Your task to perform on an android device: turn on javascript in the chrome app Image 0: 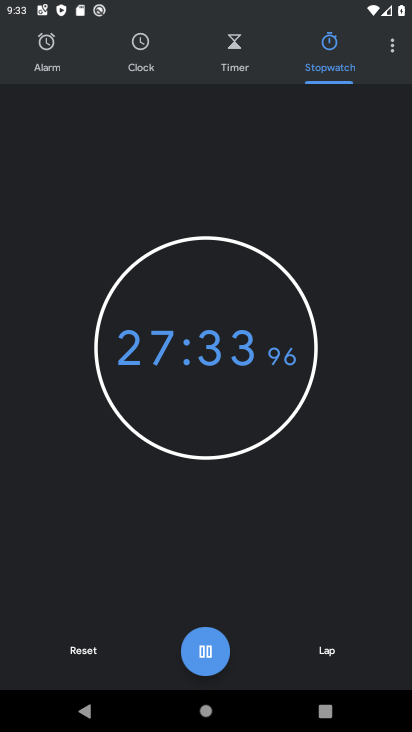
Step 0: drag from (389, 39) to (376, 100)
Your task to perform on an android device: turn on javascript in the chrome app Image 1: 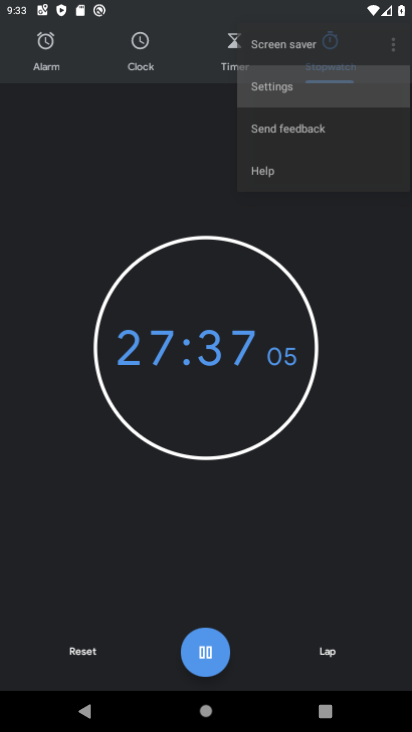
Step 1: press back button
Your task to perform on an android device: turn on javascript in the chrome app Image 2: 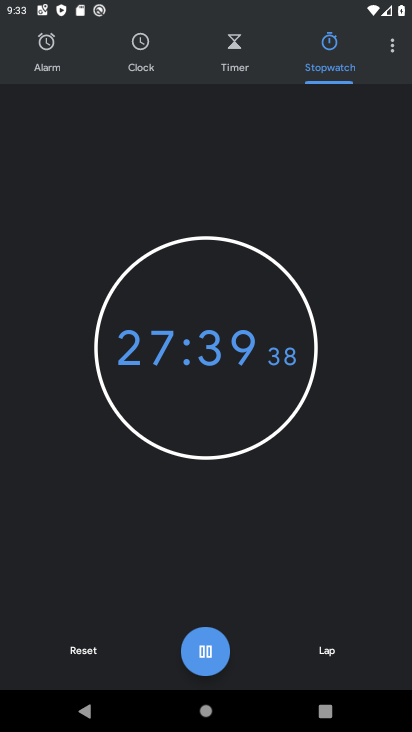
Step 2: press back button
Your task to perform on an android device: turn on javascript in the chrome app Image 3: 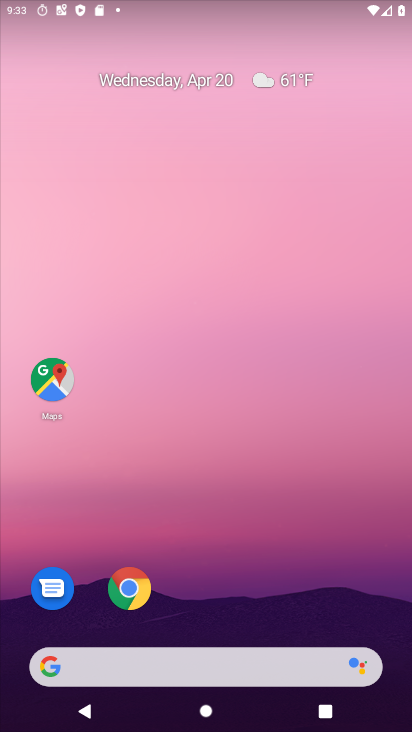
Step 3: drag from (267, 544) to (194, 21)
Your task to perform on an android device: turn on javascript in the chrome app Image 4: 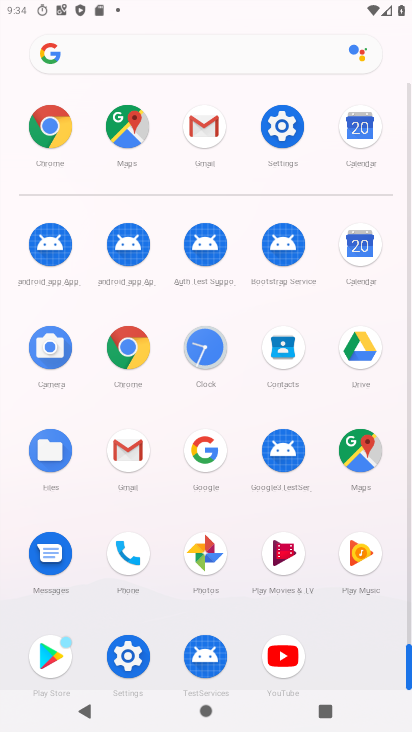
Step 4: click (126, 351)
Your task to perform on an android device: turn on javascript in the chrome app Image 5: 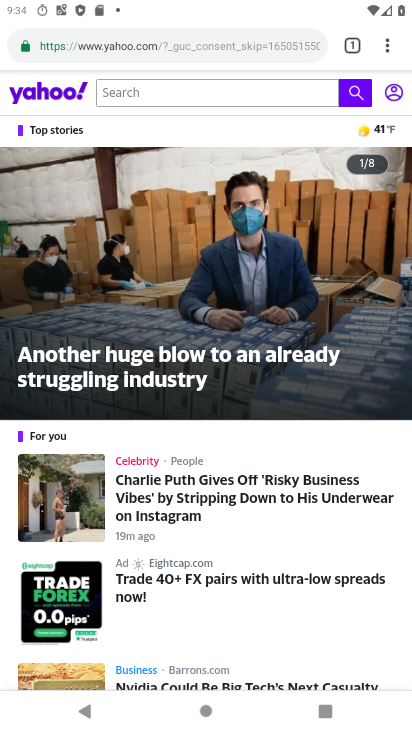
Step 5: drag from (385, 39) to (243, 599)
Your task to perform on an android device: turn on javascript in the chrome app Image 6: 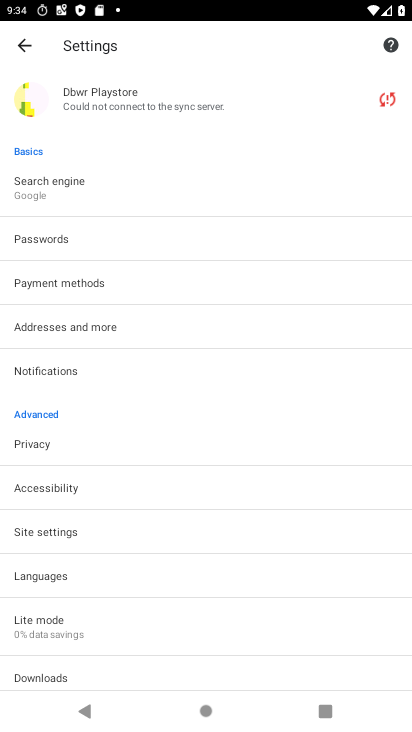
Step 6: click (72, 533)
Your task to perform on an android device: turn on javascript in the chrome app Image 7: 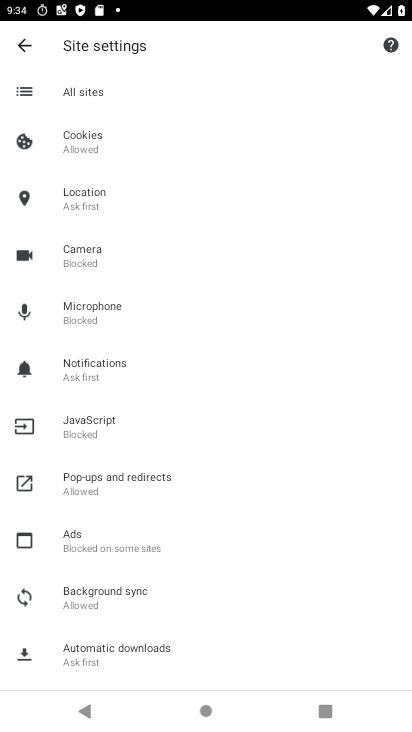
Step 7: click (134, 431)
Your task to perform on an android device: turn on javascript in the chrome app Image 8: 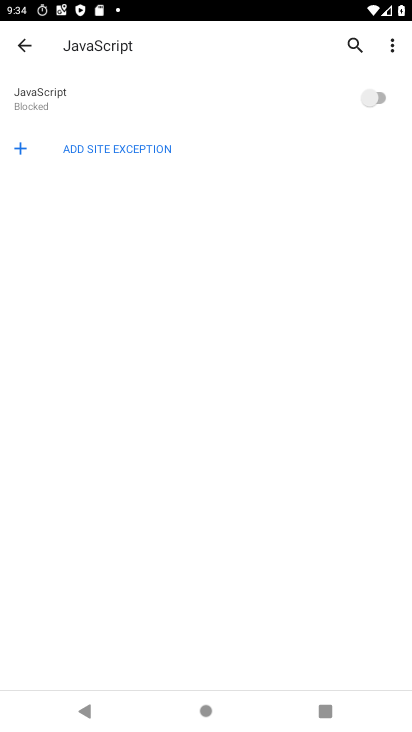
Step 8: click (373, 96)
Your task to perform on an android device: turn on javascript in the chrome app Image 9: 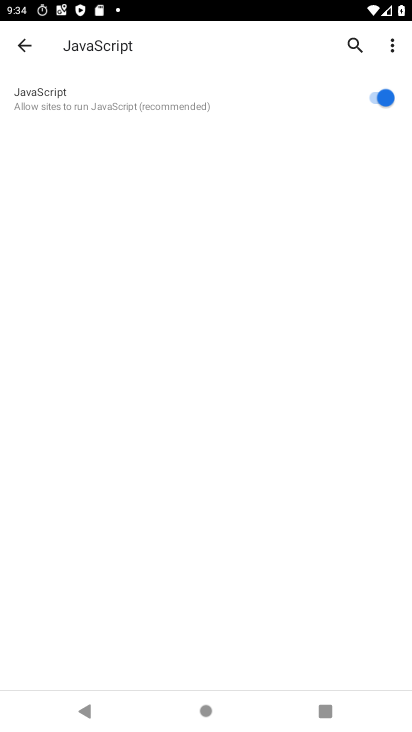
Step 9: task complete